Your task to perform on an android device: see tabs open on other devices in the chrome app Image 0: 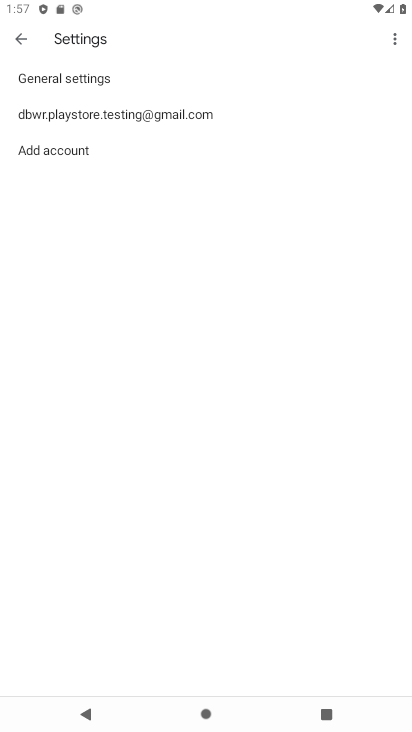
Step 0: press home button
Your task to perform on an android device: see tabs open on other devices in the chrome app Image 1: 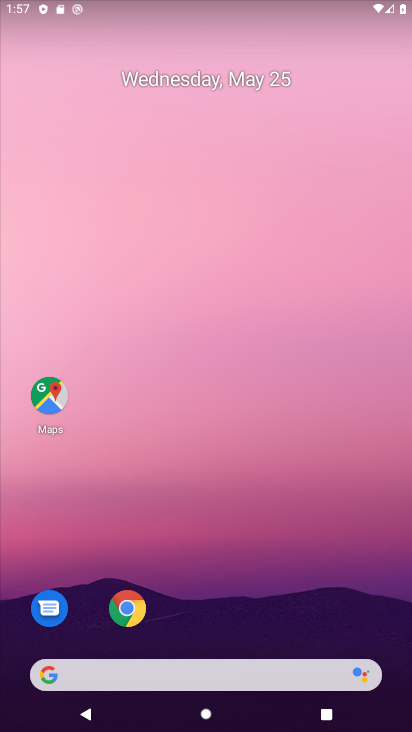
Step 1: click (125, 608)
Your task to perform on an android device: see tabs open on other devices in the chrome app Image 2: 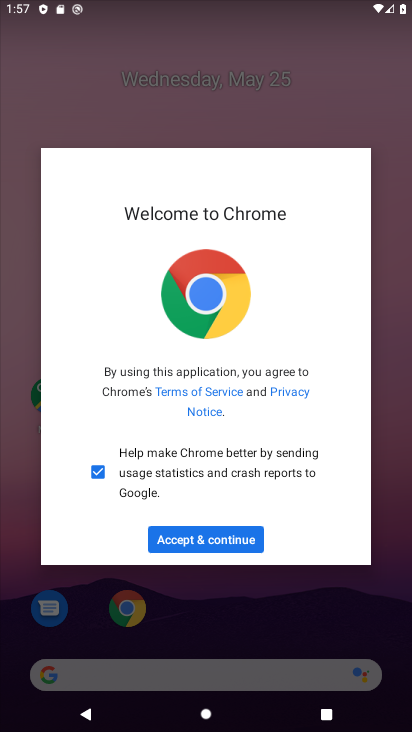
Step 2: click (207, 543)
Your task to perform on an android device: see tabs open on other devices in the chrome app Image 3: 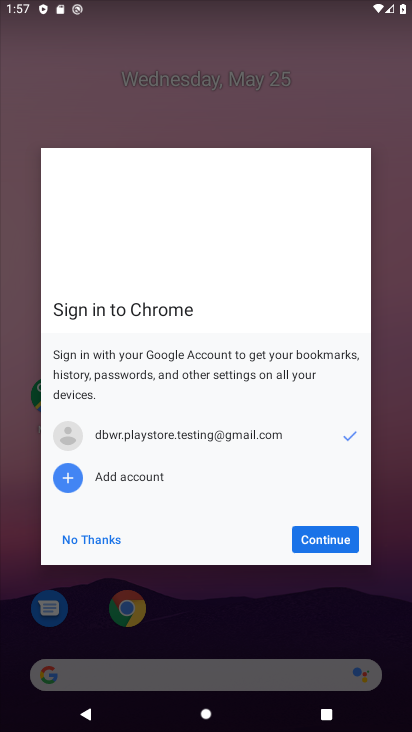
Step 3: click (321, 540)
Your task to perform on an android device: see tabs open on other devices in the chrome app Image 4: 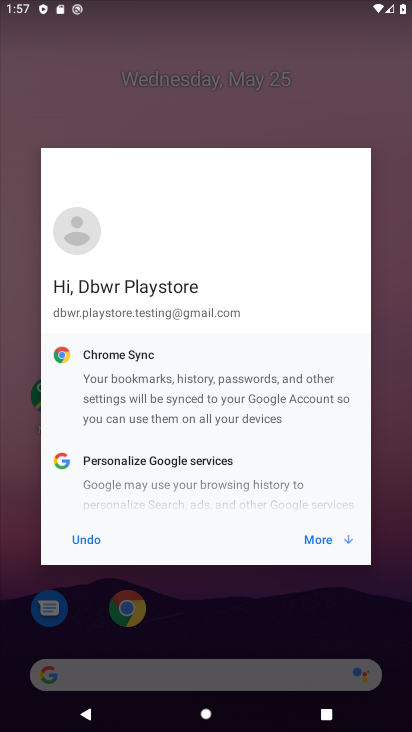
Step 4: click (318, 537)
Your task to perform on an android device: see tabs open on other devices in the chrome app Image 5: 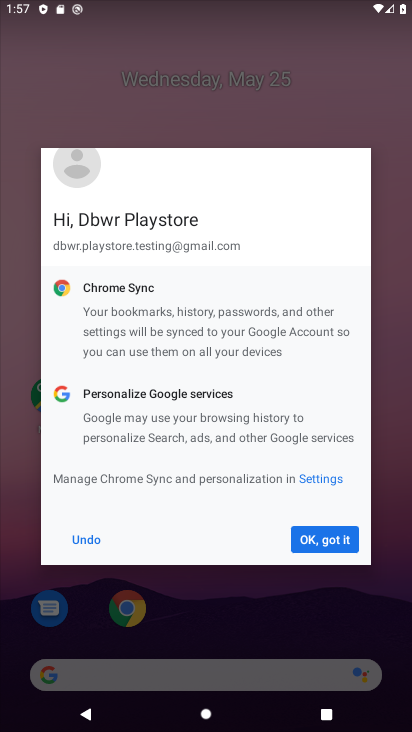
Step 5: click (327, 542)
Your task to perform on an android device: see tabs open on other devices in the chrome app Image 6: 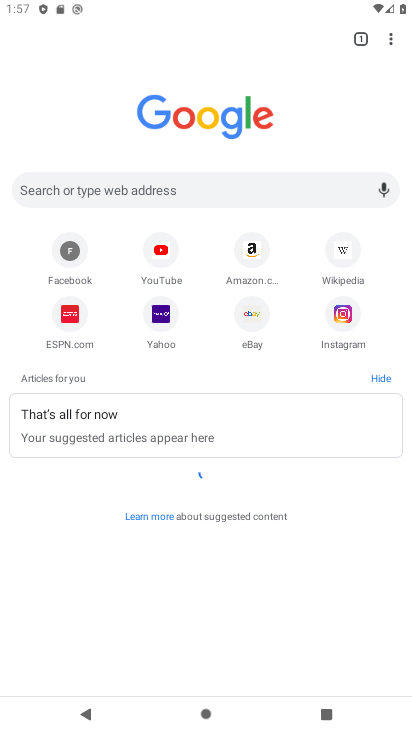
Step 6: click (387, 42)
Your task to perform on an android device: see tabs open on other devices in the chrome app Image 7: 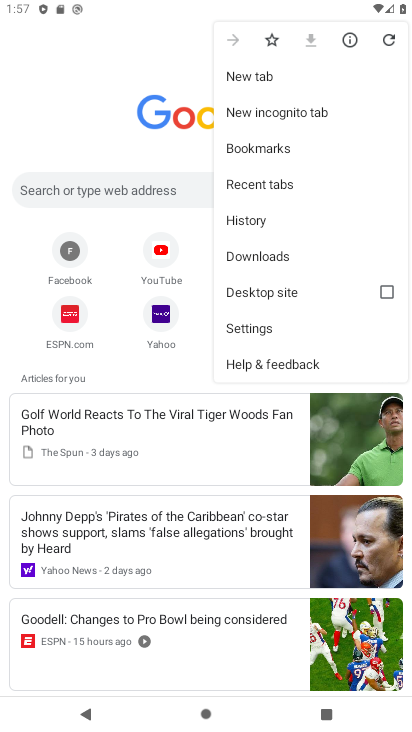
Step 7: click (255, 183)
Your task to perform on an android device: see tabs open on other devices in the chrome app Image 8: 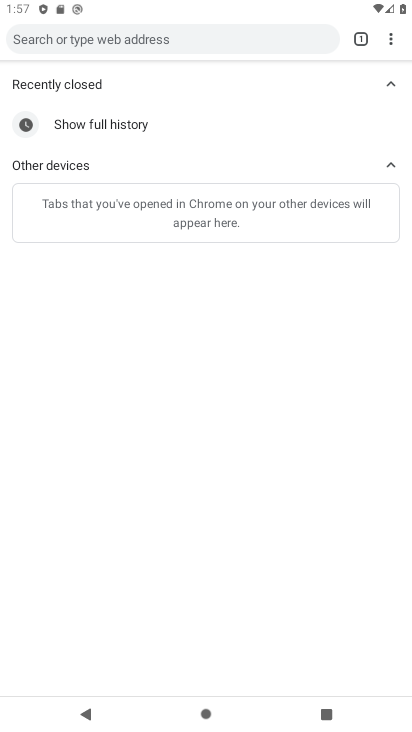
Step 8: task complete